Your task to perform on an android device: Open sound settings Image 0: 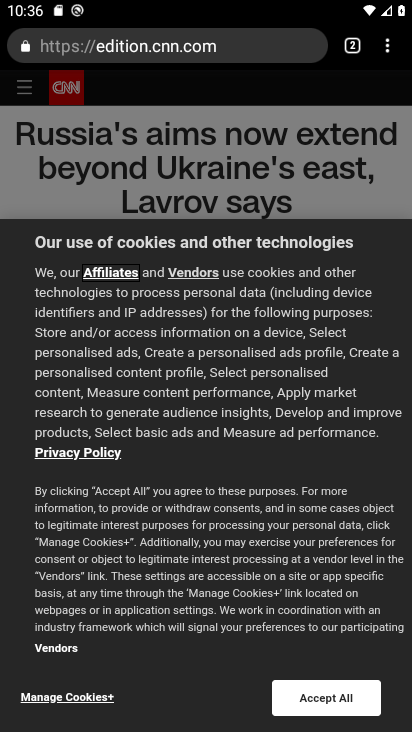
Step 0: press back button
Your task to perform on an android device: Open sound settings Image 1: 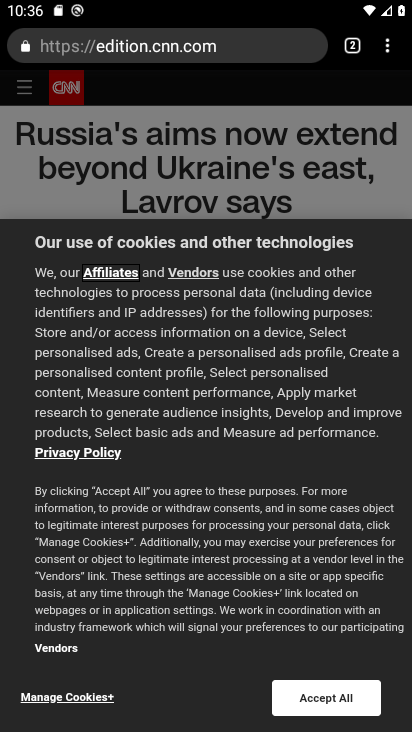
Step 1: press back button
Your task to perform on an android device: Open sound settings Image 2: 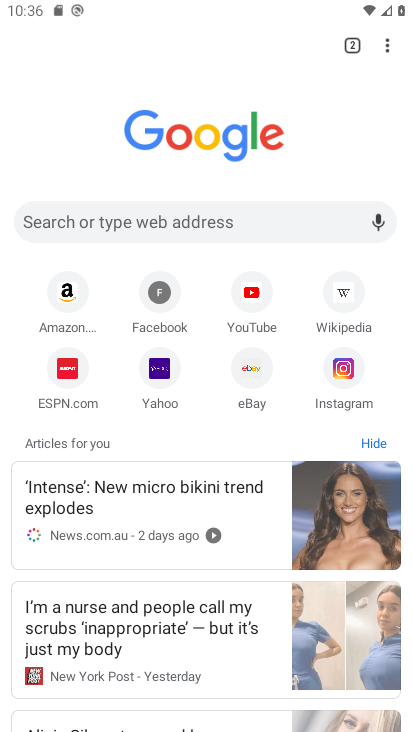
Step 2: press back button
Your task to perform on an android device: Open sound settings Image 3: 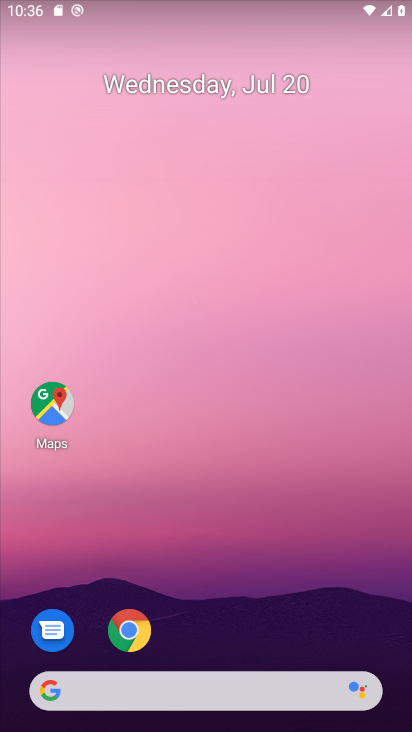
Step 3: drag from (186, 597) to (149, 72)
Your task to perform on an android device: Open sound settings Image 4: 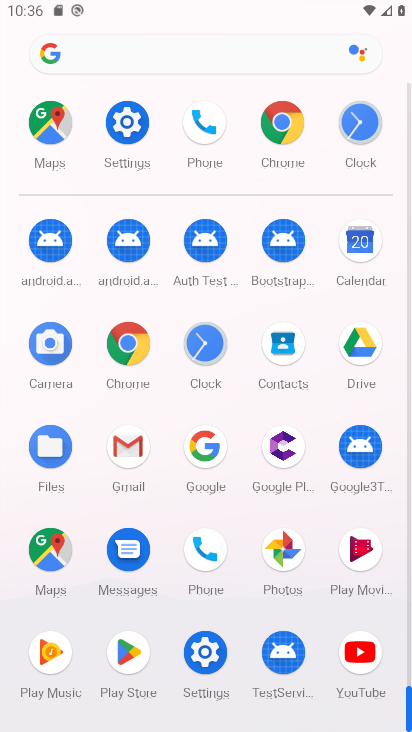
Step 4: click (195, 653)
Your task to perform on an android device: Open sound settings Image 5: 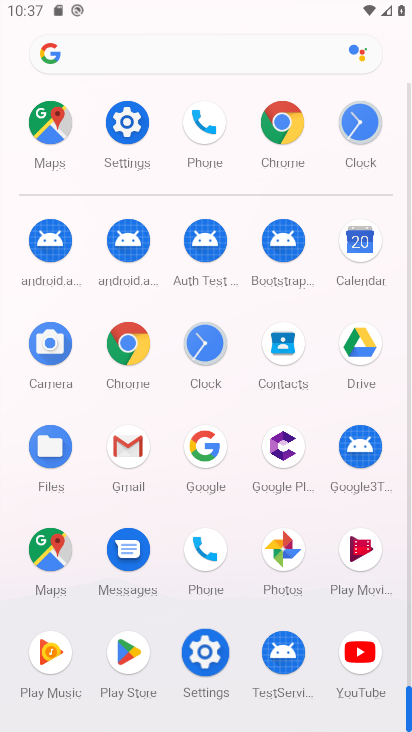
Step 5: click (196, 654)
Your task to perform on an android device: Open sound settings Image 6: 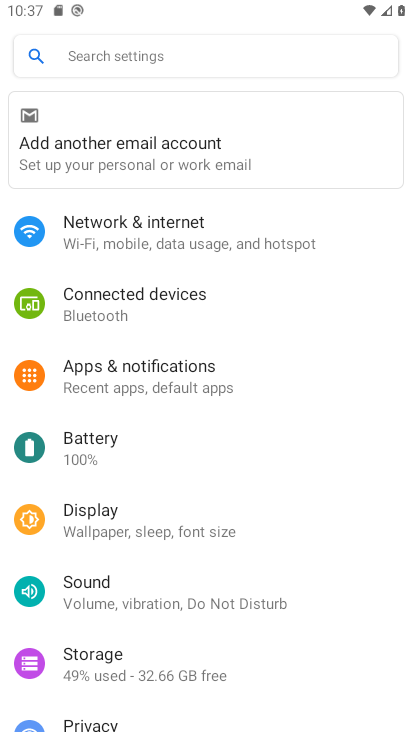
Step 6: click (104, 586)
Your task to perform on an android device: Open sound settings Image 7: 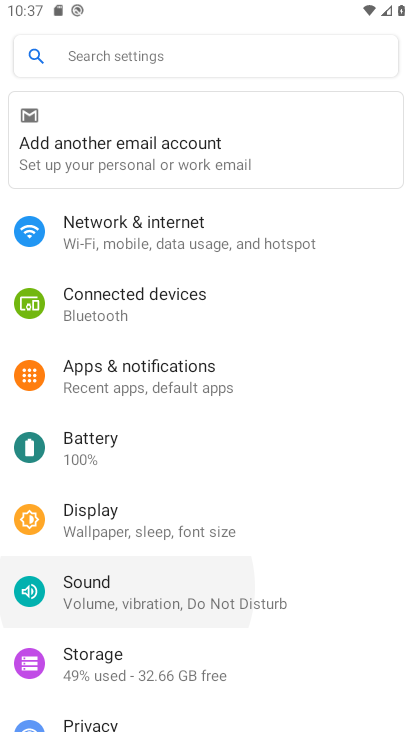
Step 7: click (104, 586)
Your task to perform on an android device: Open sound settings Image 8: 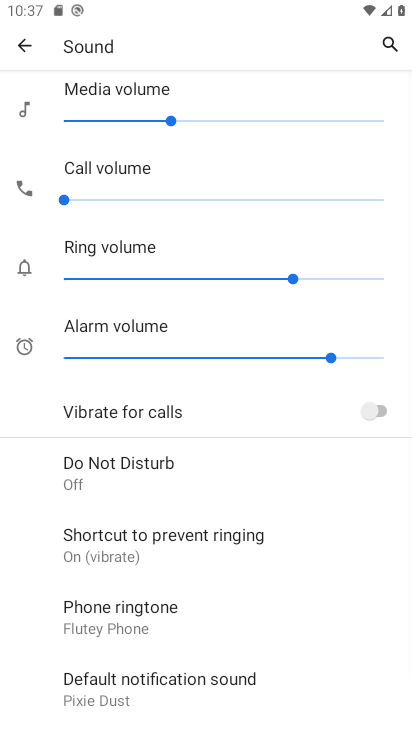
Step 8: task complete